Your task to perform on an android device: Is it going to rain tomorrow? Image 0: 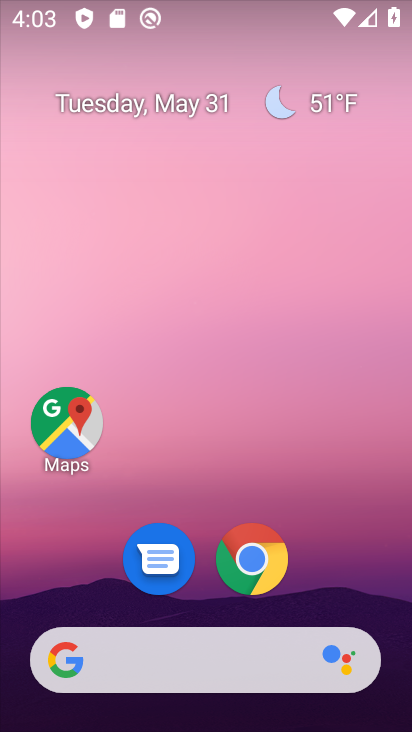
Step 0: click (189, 663)
Your task to perform on an android device: Is it going to rain tomorrow? Image 1: 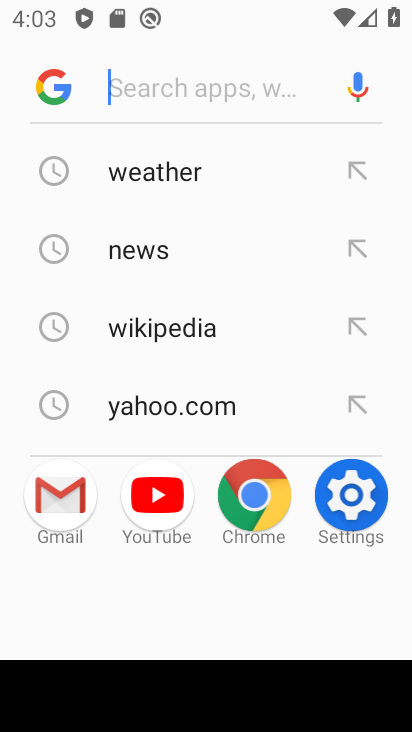
Step 1: type "is it going to rain tomorrow"
Your task to perform on an android device: Is it going to rain tomorrow? Image 2: 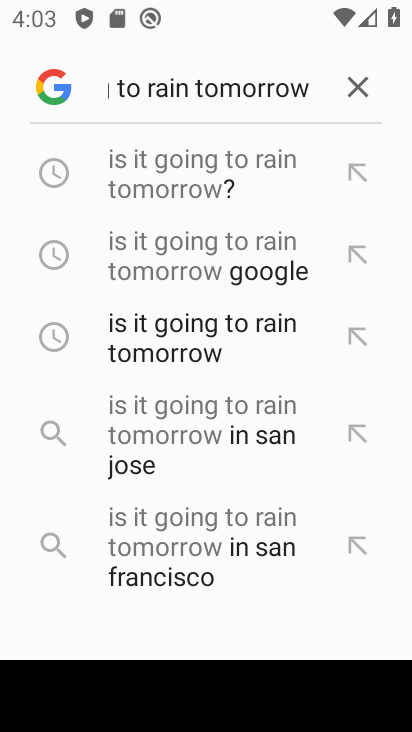
Step 2: click (162, 172)
Your task to perform on an android device: Is it going to rain tomorrow? Image 3: 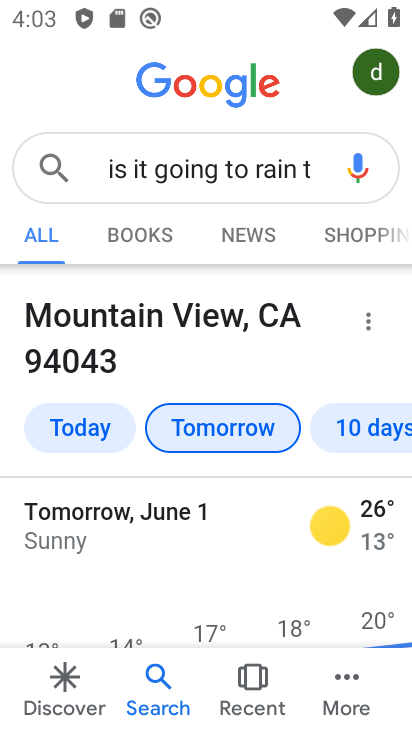
Step 3: task complete